Your task to perform on an android device: toggle pop-ups in chrome Image 0: 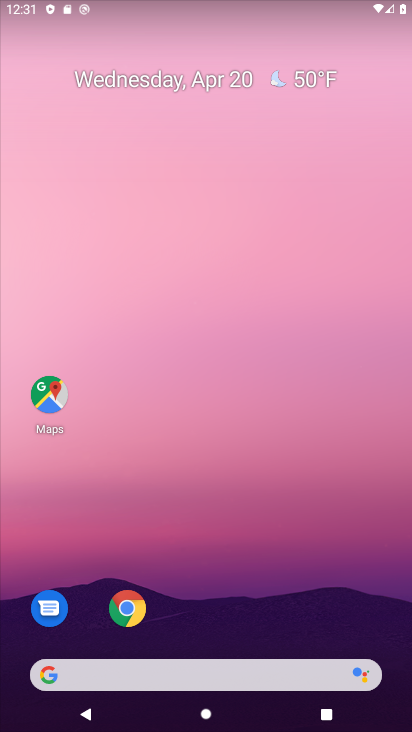
Step 0: click (138, 606)
Your task to perform on an android device: toggle pop-ups in chrome Image 1: 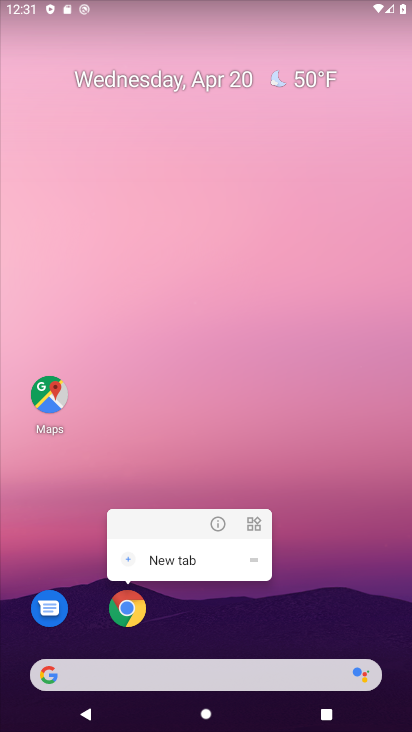
Step 1: click (116, 621)
Your task to perform on an android device: toggle pop-ups in chrome Image 2: 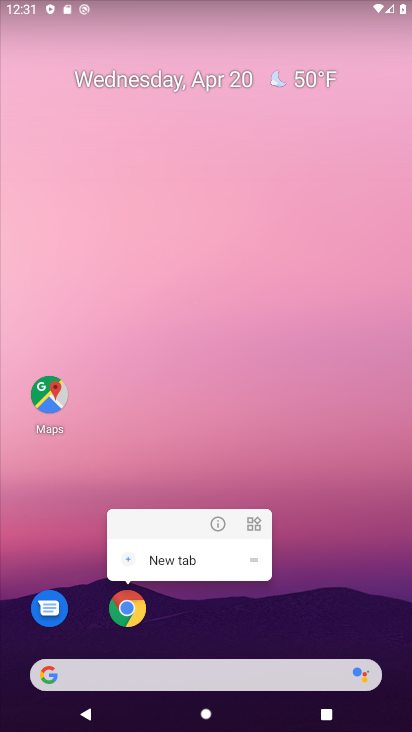
Step 2: click (122, 617)
Your task to perform on an android device: toggle pop-ups in chrome Image 3: 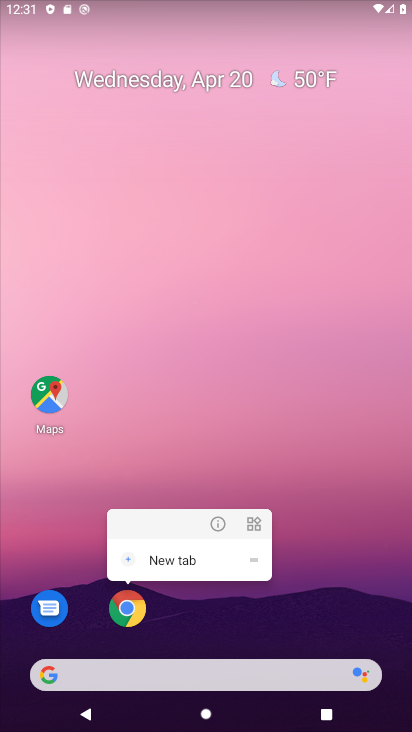
Step 3: click (137, 608)
Your task to perform on an android device: toggle pop-ups in chrome Image 4: 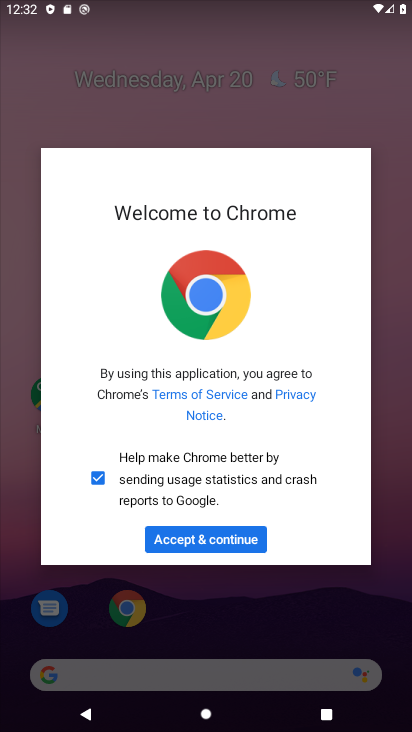
Step 4: click (245, 541)
Your task to perform on an android device: toggle pop-ups in chrome Image 5: 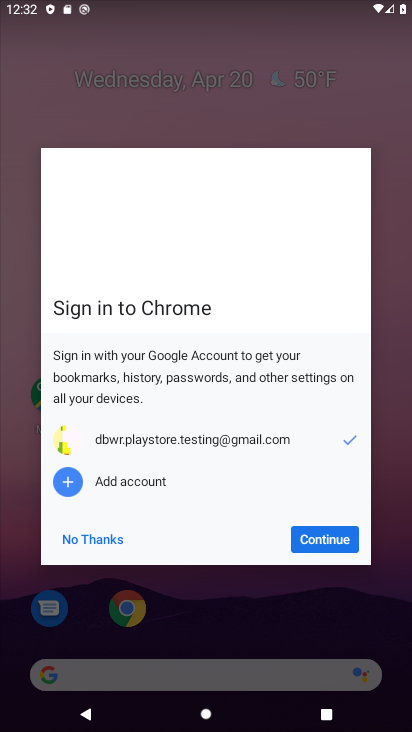
Step 5: click (302, 528)
Your task to perform on an android device: toggle pop-ups in chrome Image 6: 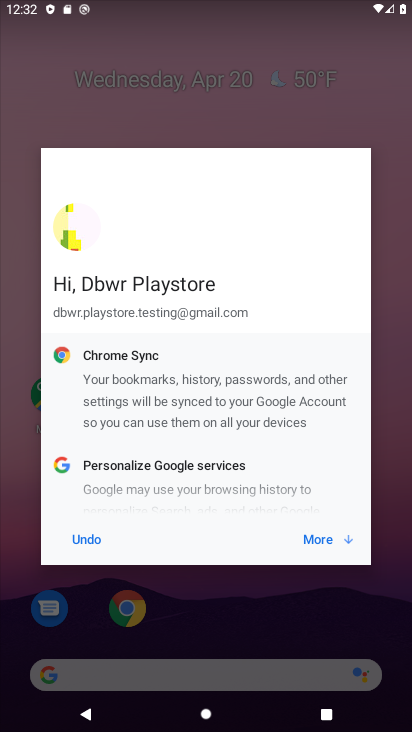
Step 6: click (301, 540)
Your task to perform on an android device: toggle pop-ups in chrome Image 7: 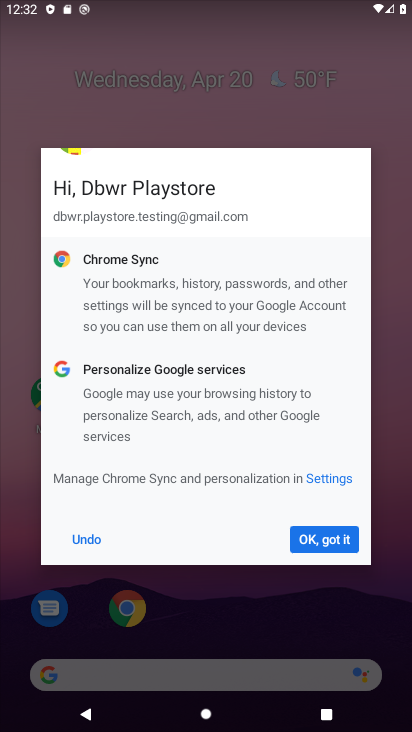
Step 7: click (301, 540)
Your task to perform on an android device: toggle pop-ups in chrome Image 8: 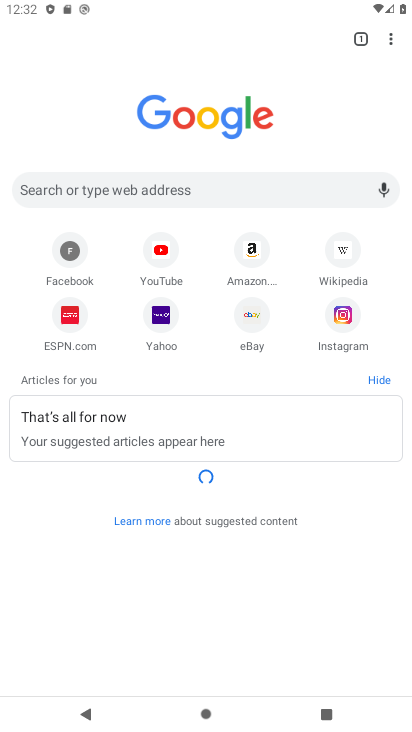
Step 8: click (387, 40)
Your task to perform on an android device: toggle pop-ups in chrome Image 9: 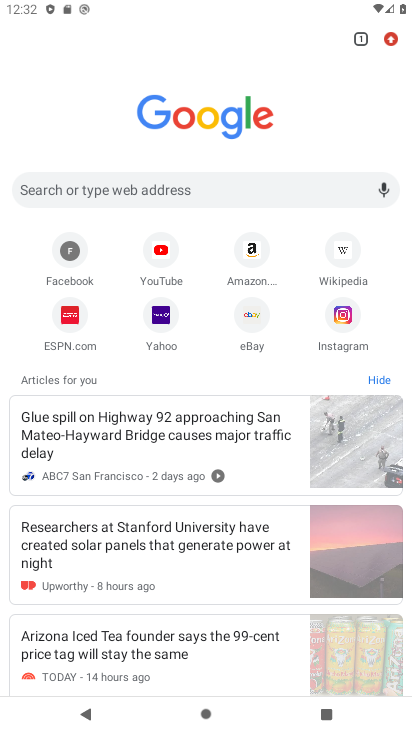
Step 9: click (258, 327)
Your task to perform on an android device: toggle pop-ups in chrome Image 10: 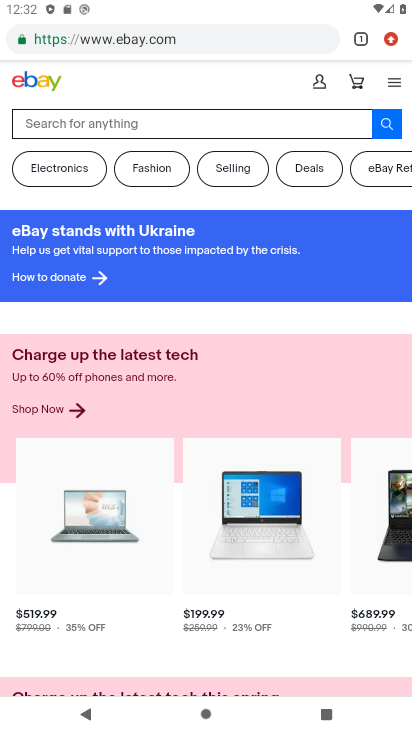
Step 10: drag from (395, 41) to (272, 518)
Your task to perform on an android device: toggle pop-ups in chrome Image 11: 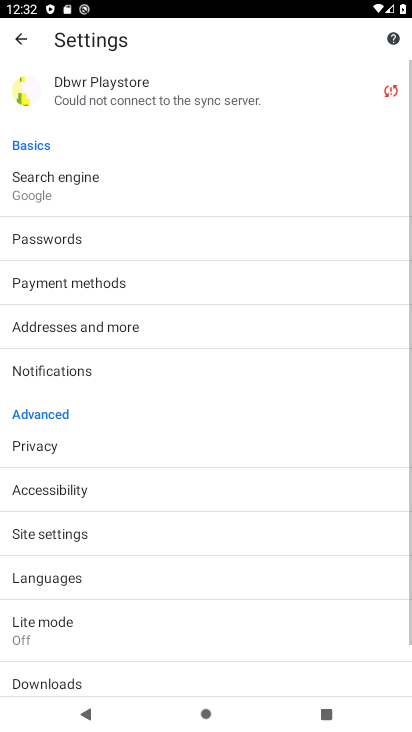
Step 11: drag from (178, 497) to (222, 245)
Your task to perform on an android device: toggle pop-ups in chrome Image 12: 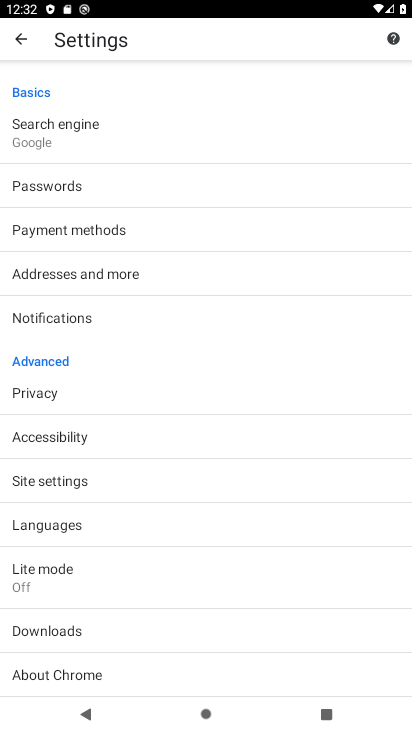
Step 12: click (102, 488)
Your task to perform on an android device: toggle pop-ups in chrome Image 13: 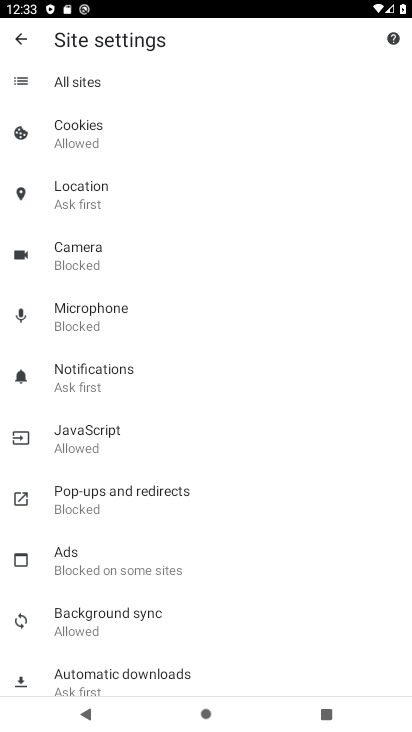
Step 13: click (132, 498)
Your task to perform on an android device: toggle pop-ups in chrome Image 14: 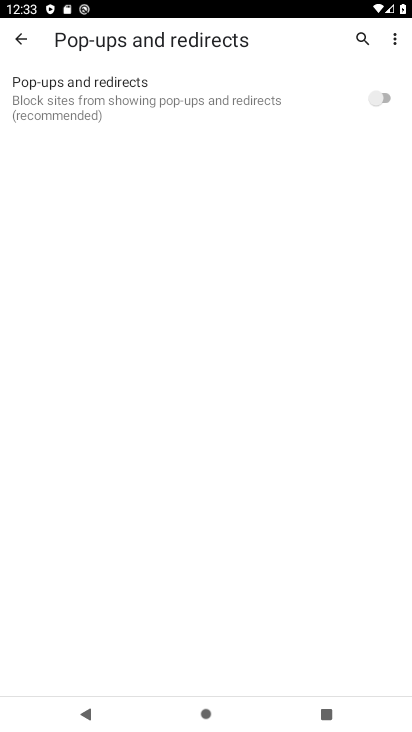
Step 14: click (379, 96)
Your task to perform on an android device: toggle pop-ups in chrome Image 15: 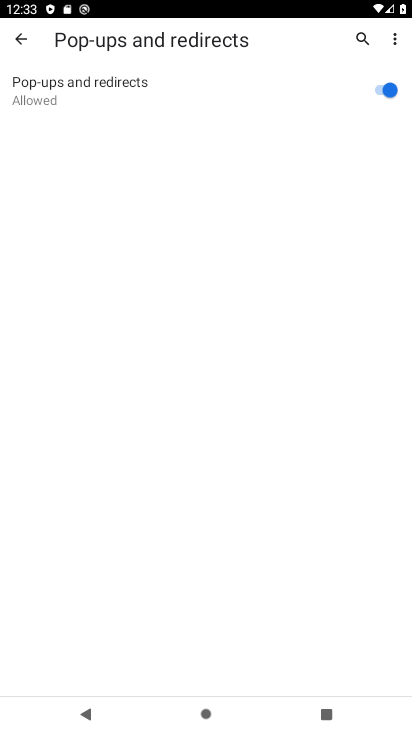
Step 15: task complete